Your task to perform on an android device: Go to Yahoo.com Image 0: 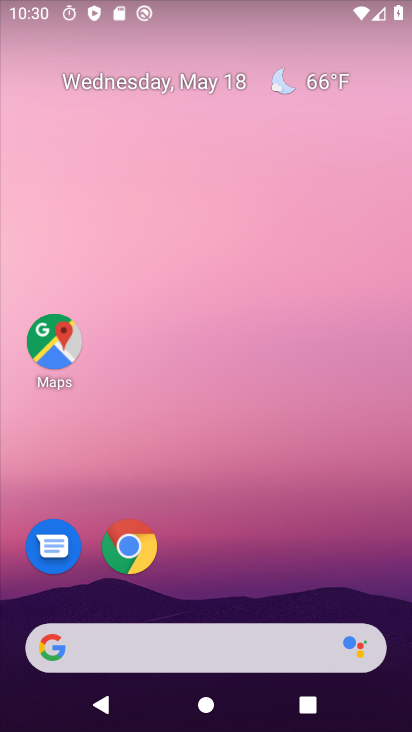
Step 0: click (137, 554)
Your task to perform on an android device: Go to Yahoo.com Image 1: 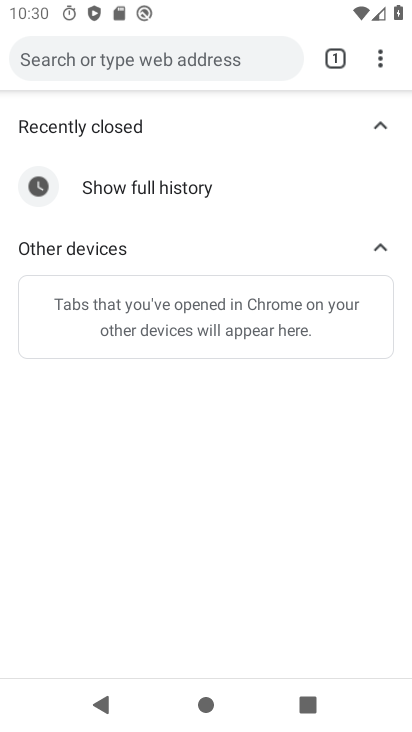
Step 1: click (326, 64)
Your task to perform on an android device: Go to Yahoo.com Image 2: 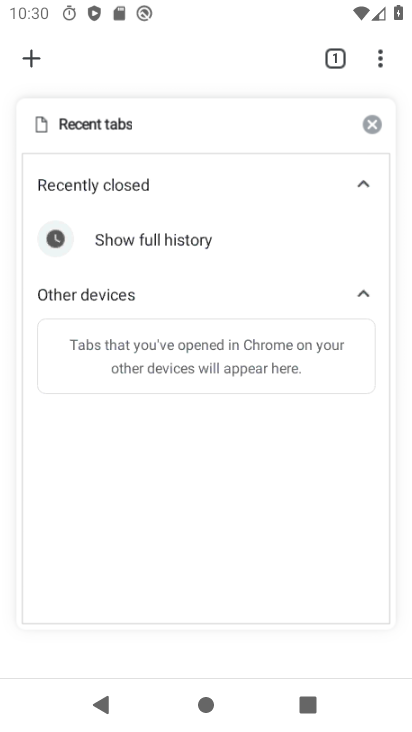
Step 2: click (30, 56)
Your task to perform on an android device: Go to Yahoo.com Image 3: 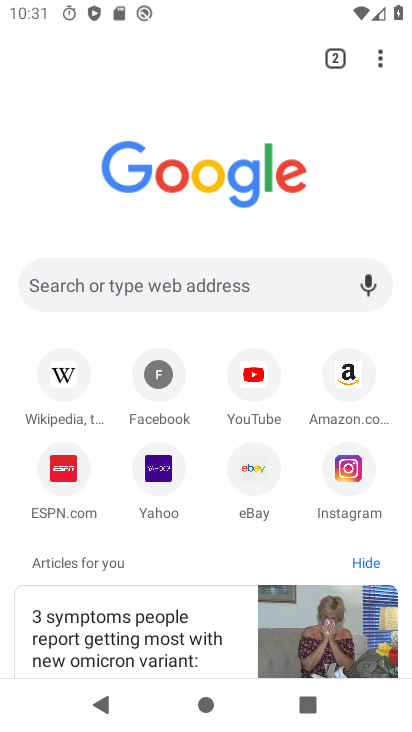
Step 3: click (160, 475)
Your task to perform on an android device: Go to Yahoo.com Image 4: 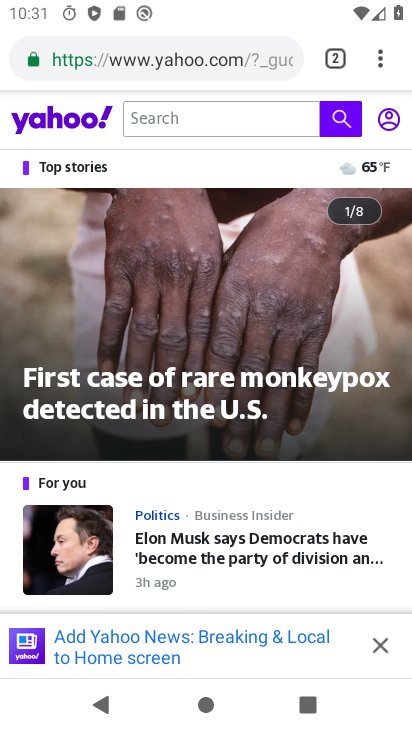
Step 4: task complete